Your task to perform on an android device: Go to Wikipedia Image 0: 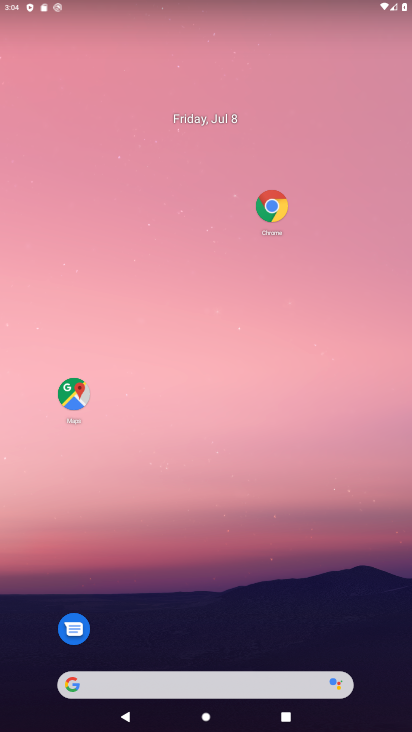
Step 0: drag from (208, 658) to (224, 15)
Your task to perform on an android device: Go to Wikipedia Image 1: 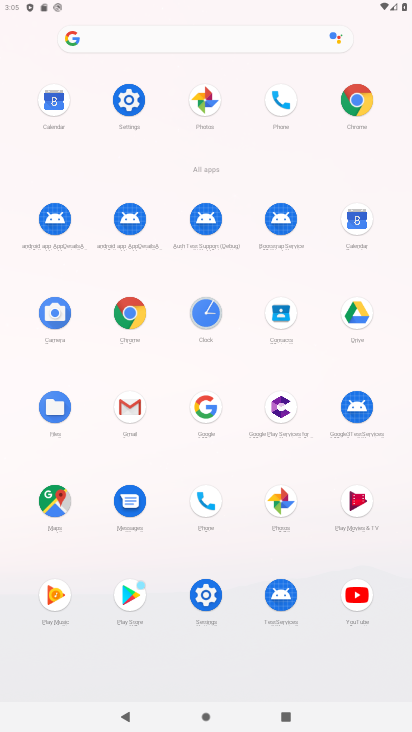
Step 1: click (358, 94)
Your task to perform on an android device: Go to Wikipedia Image 2: 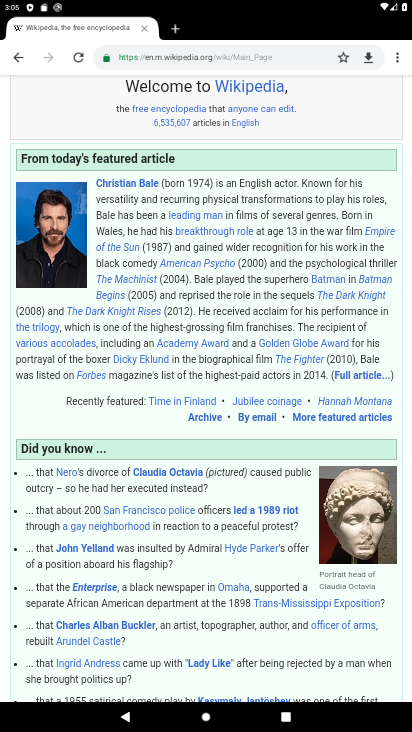
Step 2: task complete